Your task to perform on an android device: find snoozed emails in the gmail app Image 0: 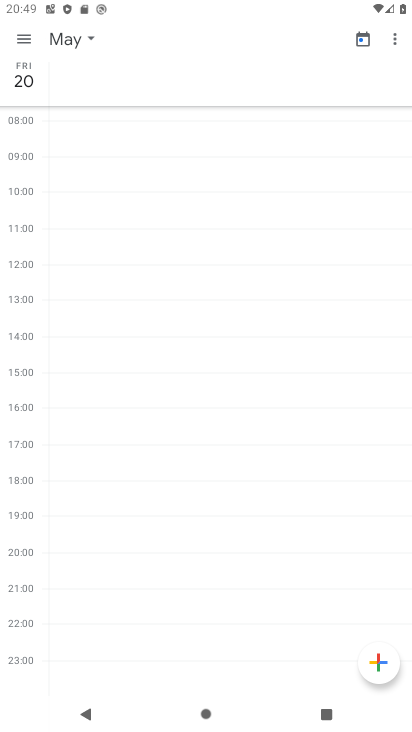
Step 0: press home button
Your task to perform on an android device: find snoozed emails in the gmail app Image 1: 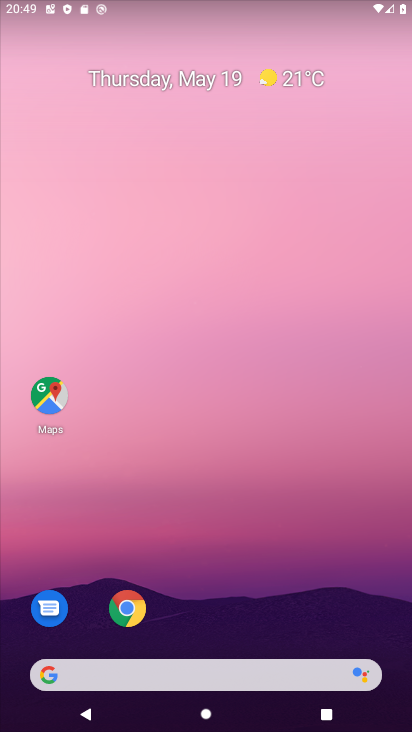
Step 1: drag from (205, 490) to (141, 96)
Your task to perform on an android device: find snoozed emails in the gmail app Image 2: 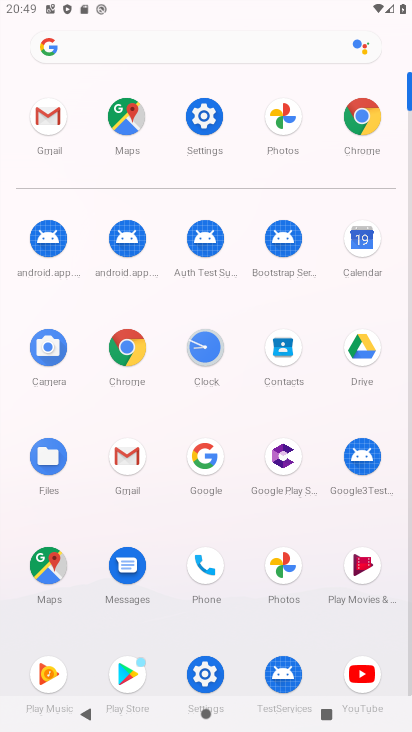
Step 2: click (42, 124)
Your task to perform on an android device: find snoozed emails in the gmail app Image 3: 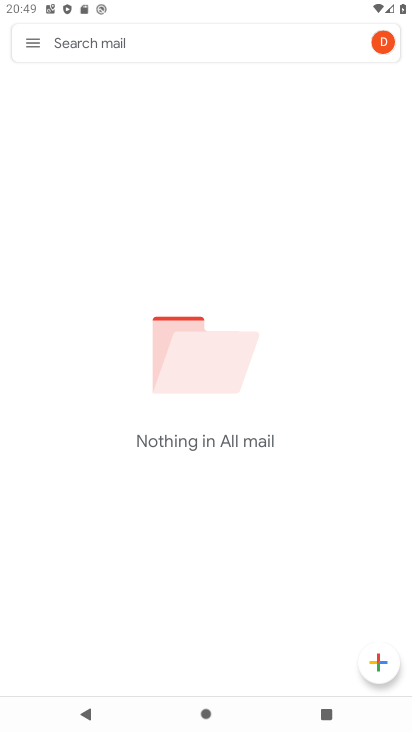
Step 3: click (36, 41)
Your task to perform on an android device: find snoozed emails in the gmail app Image 4: 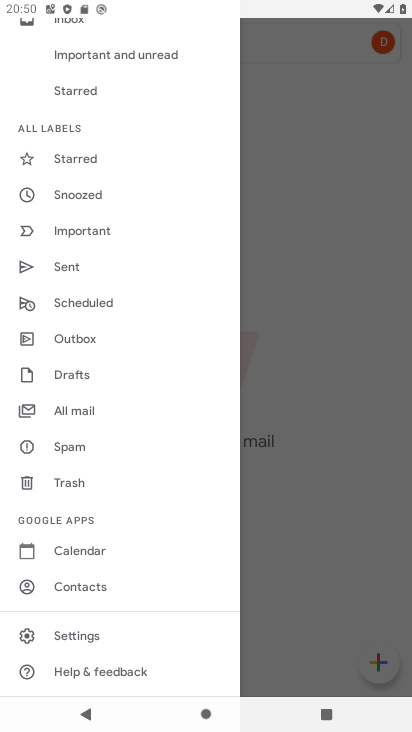
Step 4: click (78, 195)
Your task to perform on an android device: find snoozed emails in the gmail app Image 5: 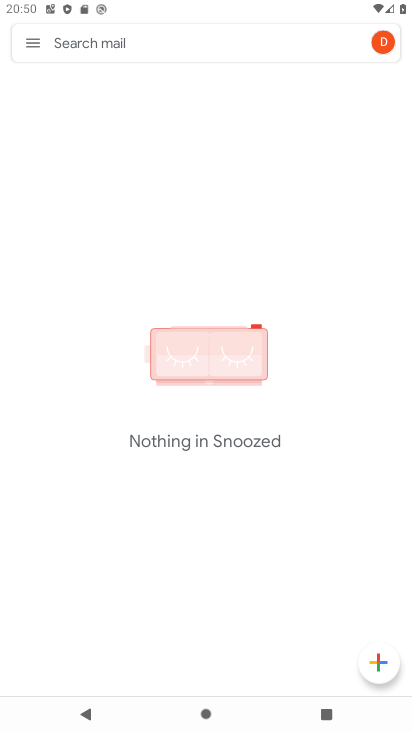
Step 5: task complete